Your task to perform on an android device: turn on translation in the chrome app Image 0: 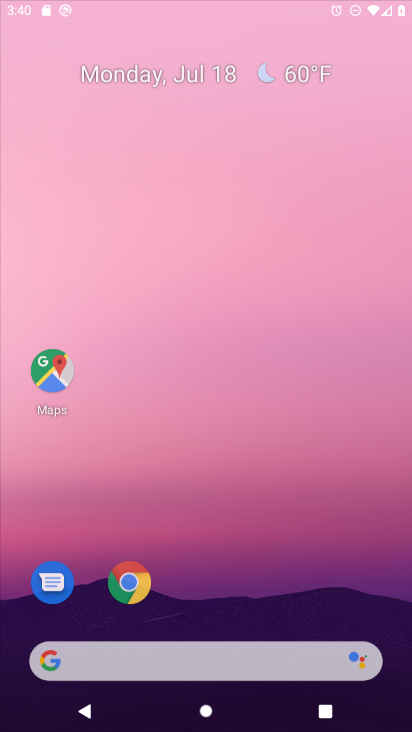
Step 0: press home button
Your task to perform on an android device: turn on translation in the chrome app Image 1: 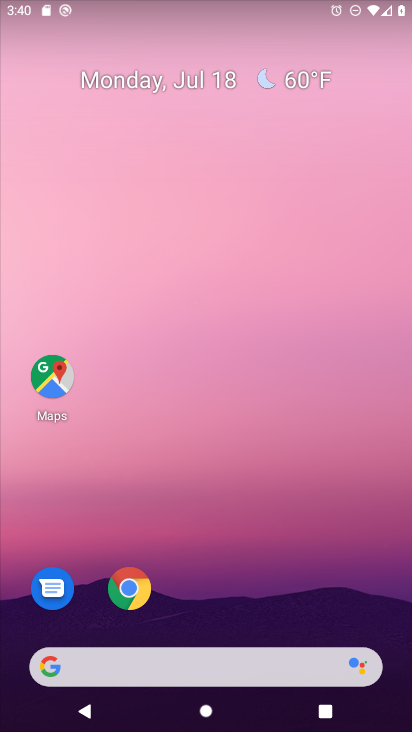
Step 1: click (126, 582)
Your task to perform on an android device: turn on translation in the chrome app Image 2: 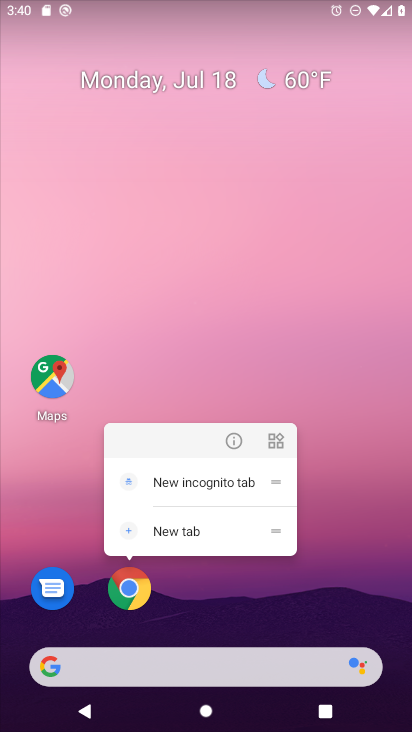
Step 2: click (124, 582)
Your task to perform on an android device: turn on translation in the chrome app Image 3: 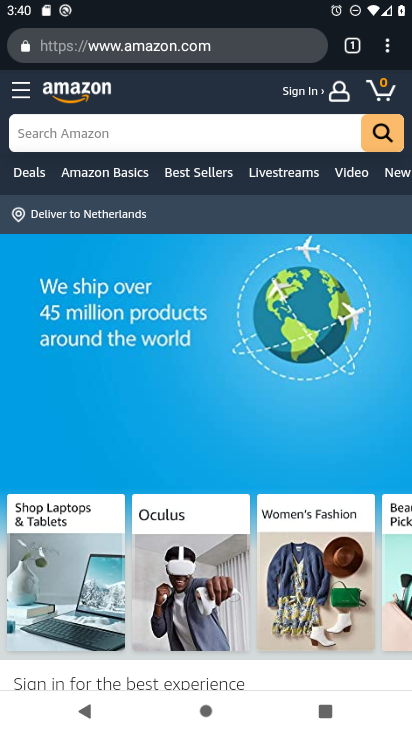
Step 3: click (386, 41)
Your task to perform on an android device: turn on translation in the chrome app Image 4: 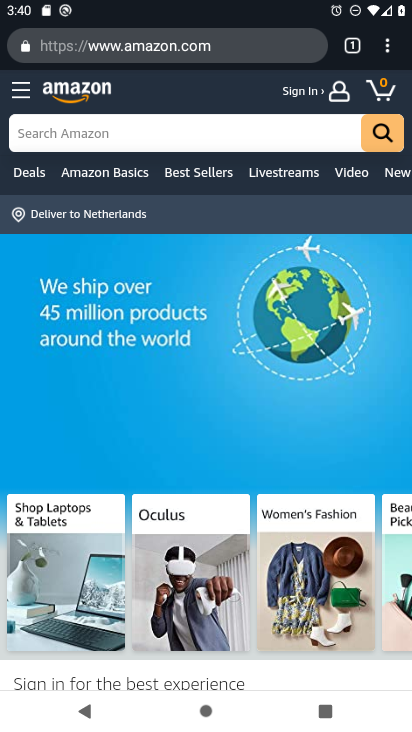
Step 4: click (391, 49)
Your task to perform on an android device: turn on translation in the chrome app Image 5: 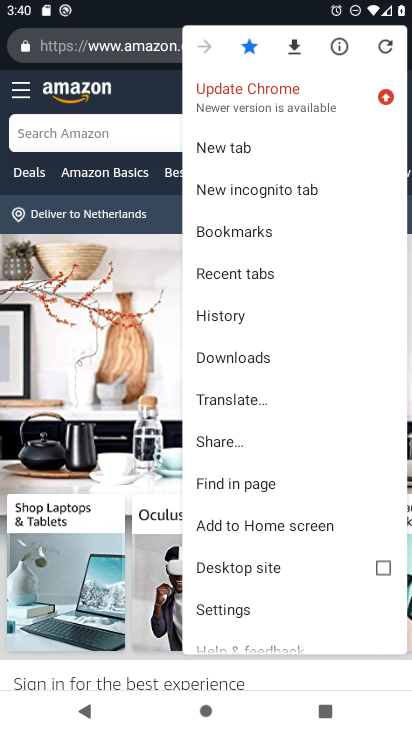
Step 5: click (263, 607)
Your task to perform on an android device: turn on translation in the chrome app Image 6: 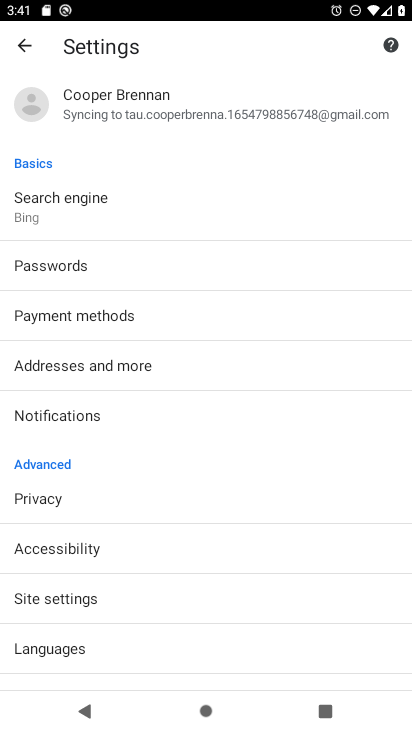
Step 6: click (110, 646)
Your task to perform on an android device: turn on translation in the chrome app Image 7: 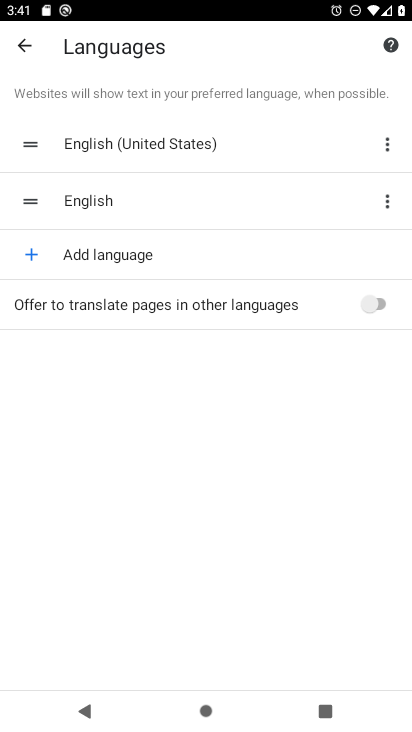
Step 7: click (383, 297)
Your task to perform on an android device: turn on translation in the chrome app Image 8: 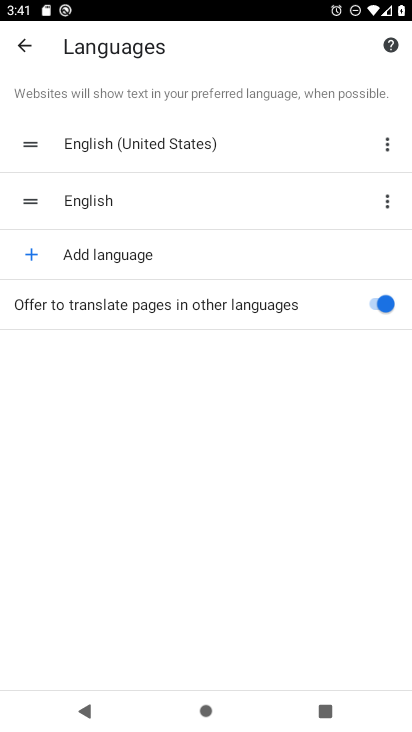
Step 8: task complete